Your task to perform on an android device: empty trash in google photos Image 0: 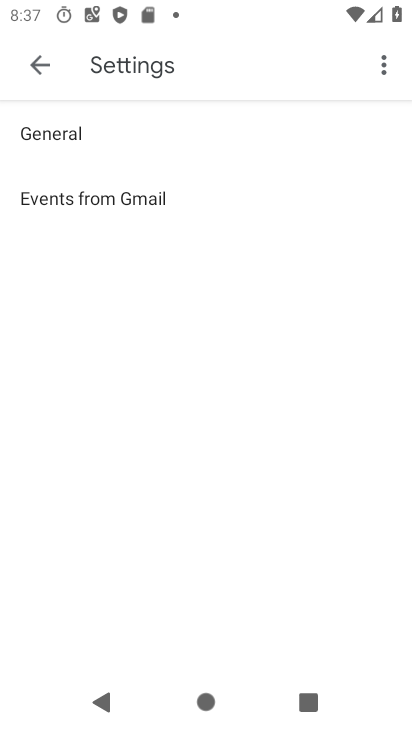
Step 0: press home button
Your task to perform on an android device: empty trash in google photos Image 1: 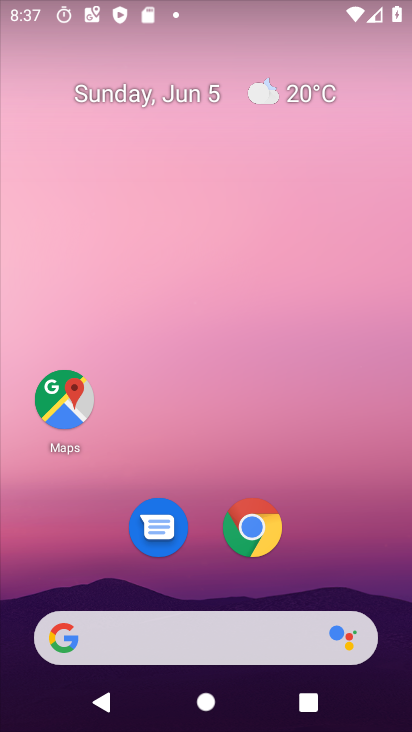
Step 1: drag from (343, 582) to (290, 76)
Your task to perform on an android device: empty trash in google photos Image 2: 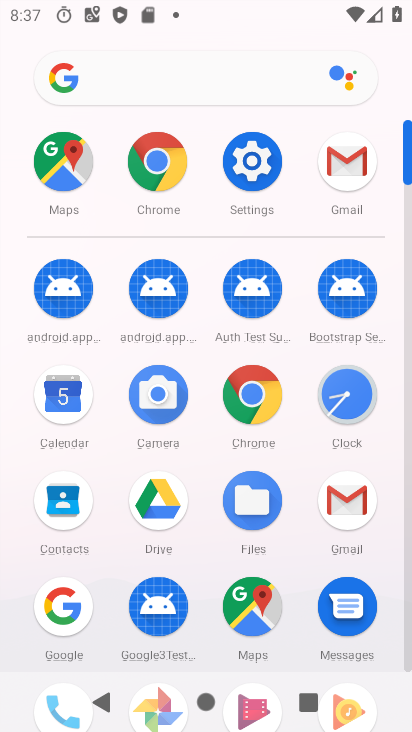
Step 2: drag from (380, 594) to (395, 221)
Your task to perform on an android device: empty trash in google photos Image 3: 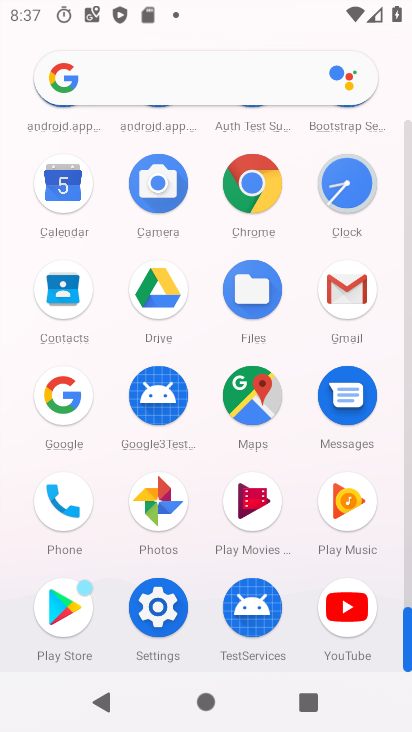
Step 3: click (180, 524)
Your task to perform on an android device: empty trash in google photos Image 4: 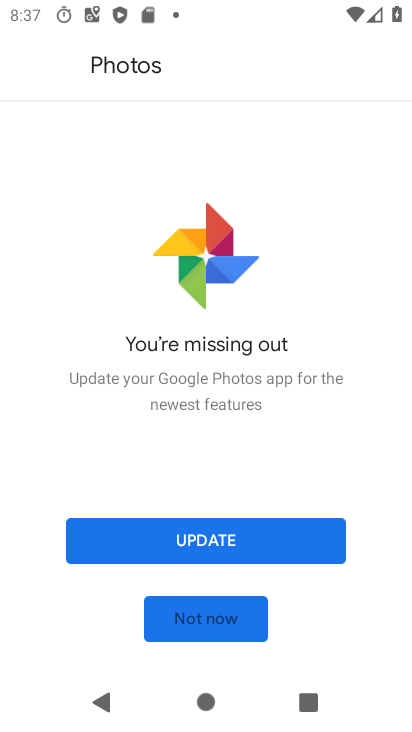
Step 4: click (240, 543)
Your task to perform on an android device: empty trash in google photos Image 5: 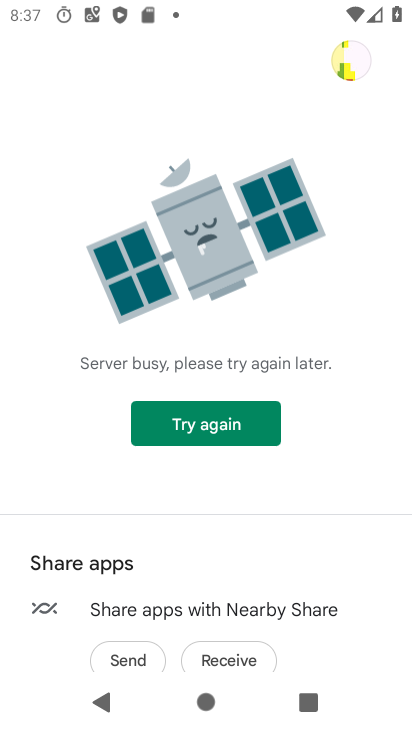
Step 5: click (248, 429)
Your task to perform on an android device: empty trash in google photos Image 6: 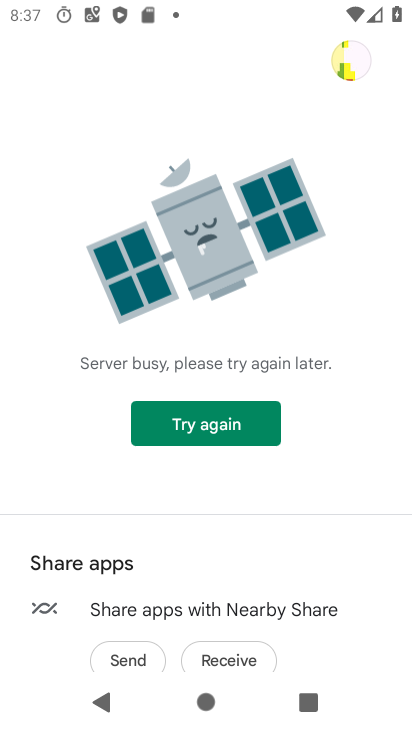
Step 6: task complete